Your task to perform on an android device: Is it going to rain today? Image 0: 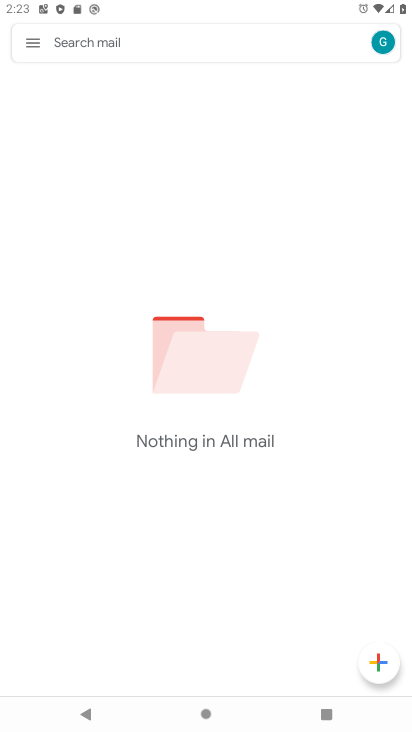
Step 0: press home button
Your task to perform on an android device: Is it going to rain today? Image 1: 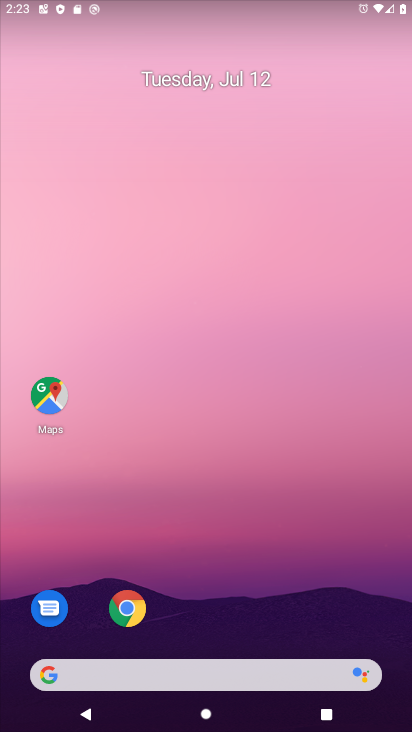
Step 1: drag from (301, 588) to (188, 140)
Your task to perform on an android device: Is it going to rain today? Image 2: 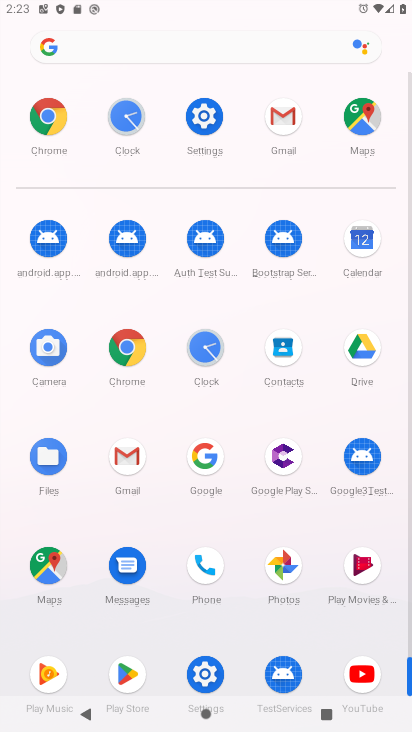
Step 2: click (136, 353)
Your task to perform on an android device: Is it going to rain today? Image 3: 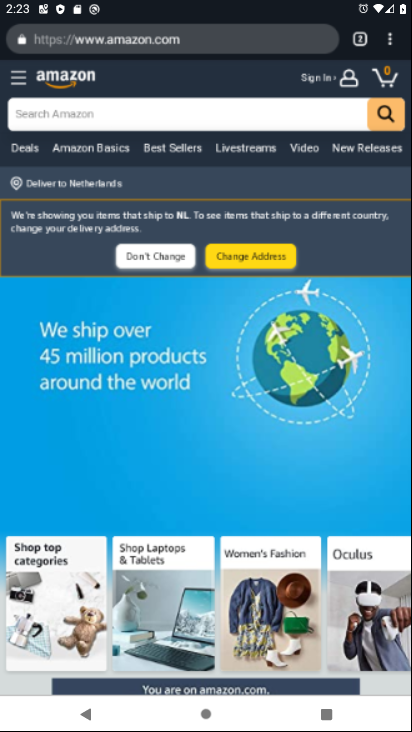
Step 3: click (212, 45)
Your task to perform on an android device: Is it going to rain today? Image 4: 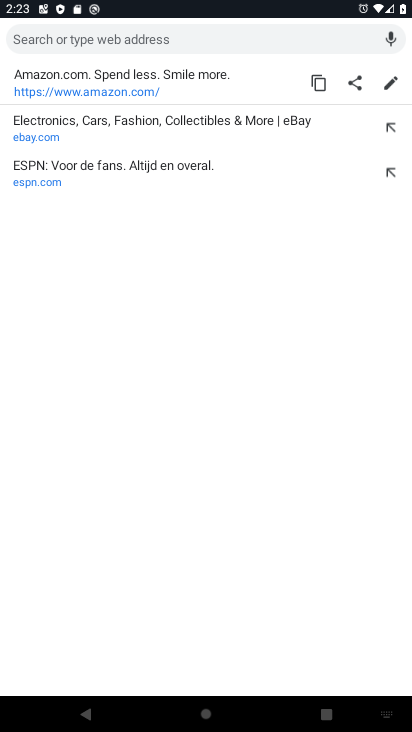
Step 4: type "weather"
Your task to perform on an android device: Is it going to rain today? Image 5: 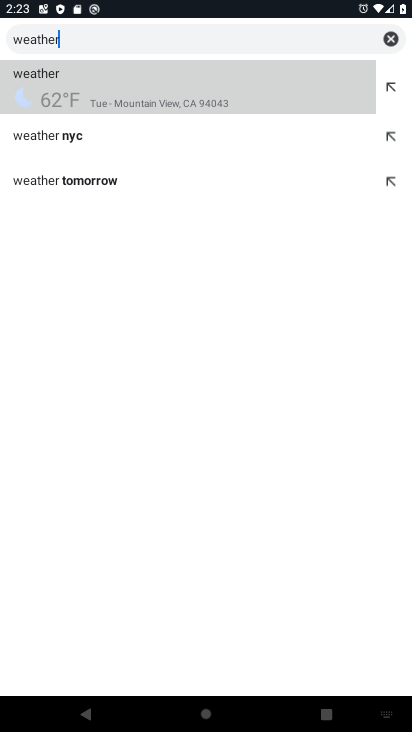
Step 5: click (68, 86)
Your task to perform on an android device: Is it going to rain today? Image 6: 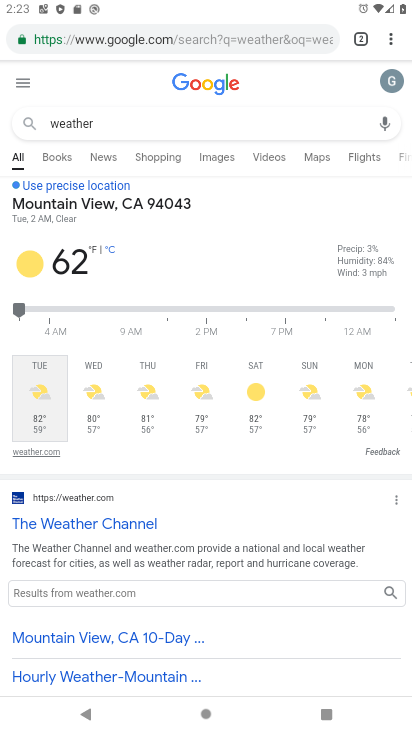
Step 6: task complete